Your task to perform on an android device: toggle airplane mode Image 0: 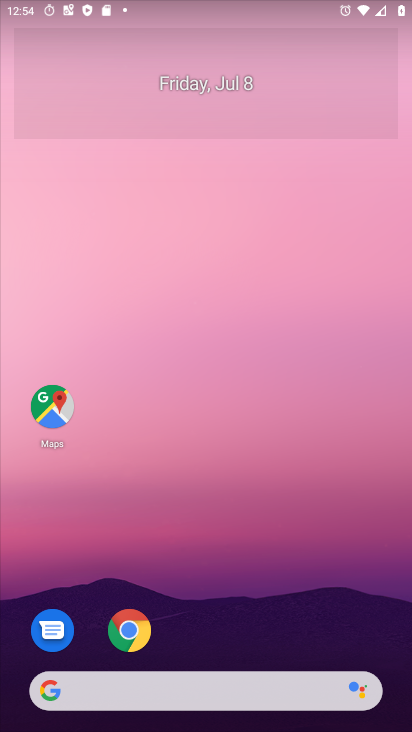
Step 0: drag from (214, 637) to (213, 184)
Your task to perform on an android device: toggle airplane mode Image 1: 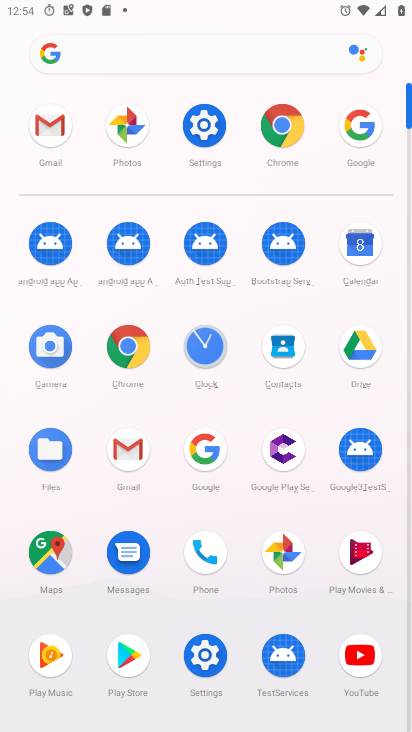
Step 1: click (213, 130)
Your task to perform on an android device: toggle airplane mode Image 2: 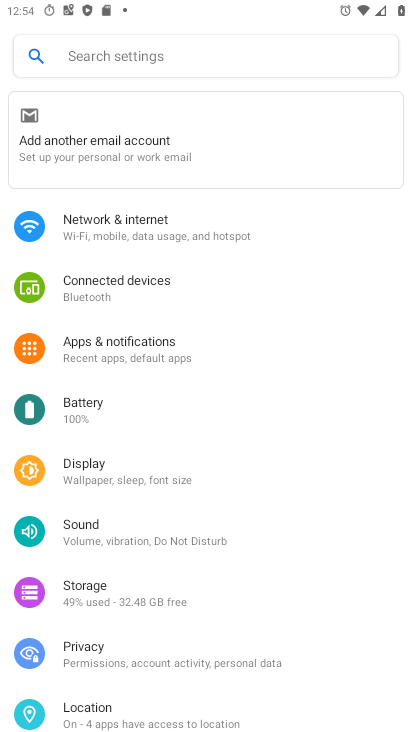
Step 2: click (201, 221)
Your task to perform on an android device: toggle airplane mode Image 3: 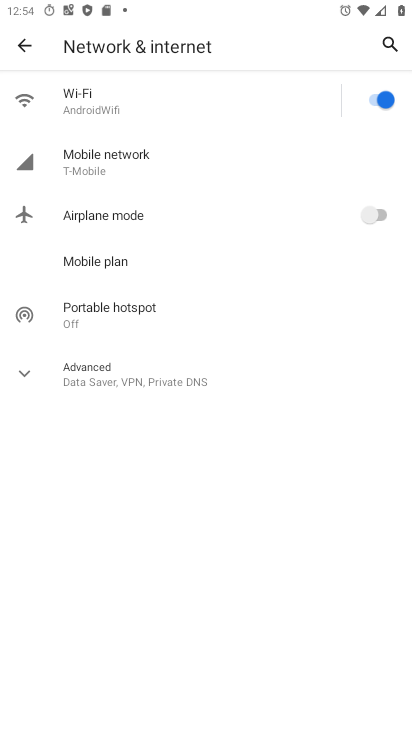
Step 3: click (383, 218)
Your task to perform on an android device: toggle airplane mode Image 4: 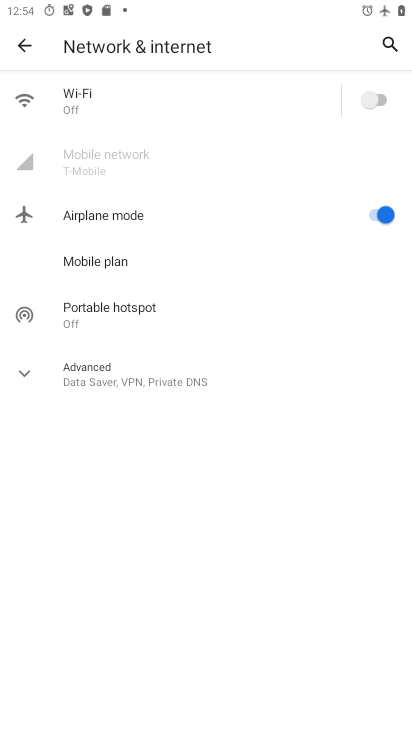
Step 4: task complete